Your task to perform on an android device: add a label to a message in the gmail app Image 0: 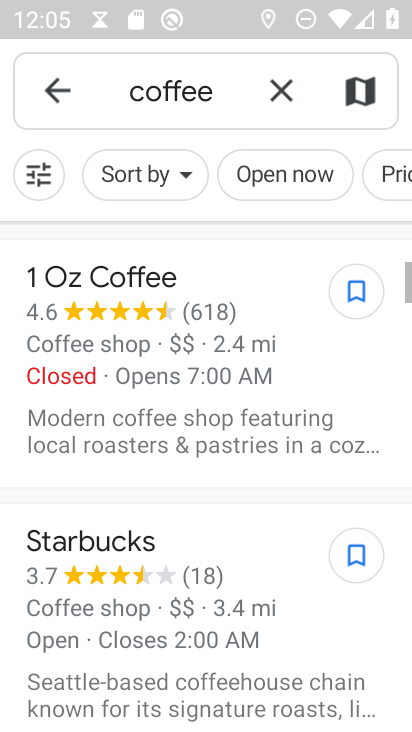
Step 0: press home button
Your task to perform on an android device: add a label to a message in the gmail app Image 1: 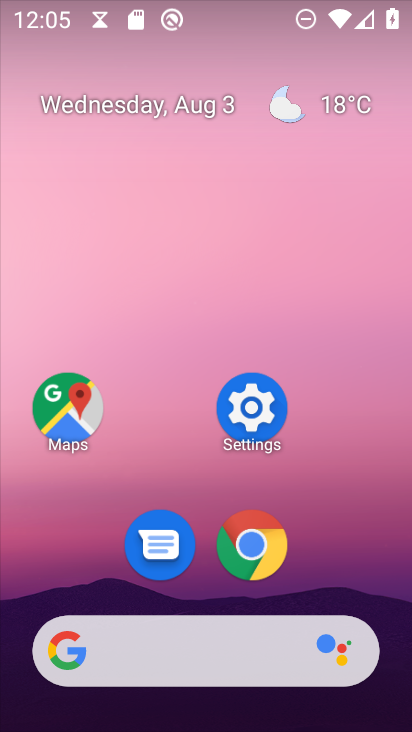
Step 1: drag from (202, 647) to (321, 144)
Your task to perform on an android device: add a label to a message in the gmail app Image 2: 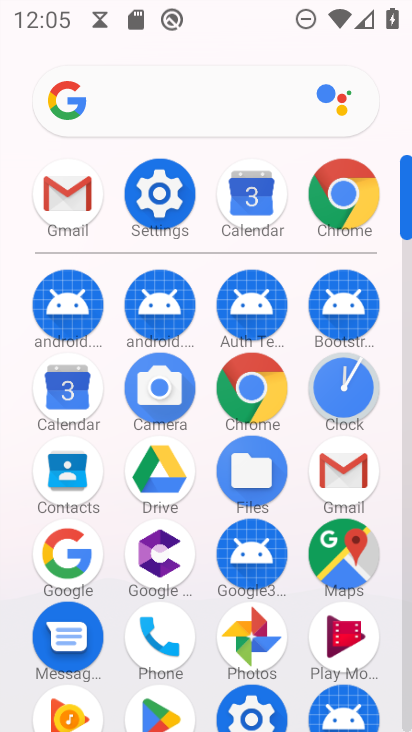
Step 2: click (65, 204)
Your task to perform on an android device: add a label to a message in the gmail app Image 3: 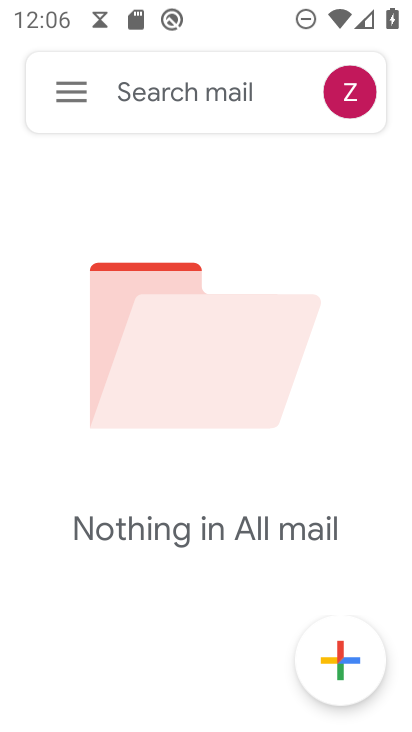
Step 3: task complete